Your task to perform on an android device: Show me productivity apps on the Play Store Image 0: 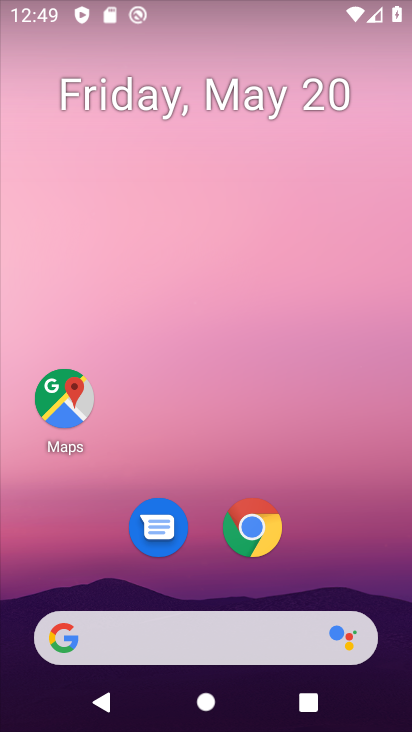
Step 0: drag from (249, 415) to (241, 1)
Your task to perform on an android device: Show me productivity apps on the Play Store Image 1: 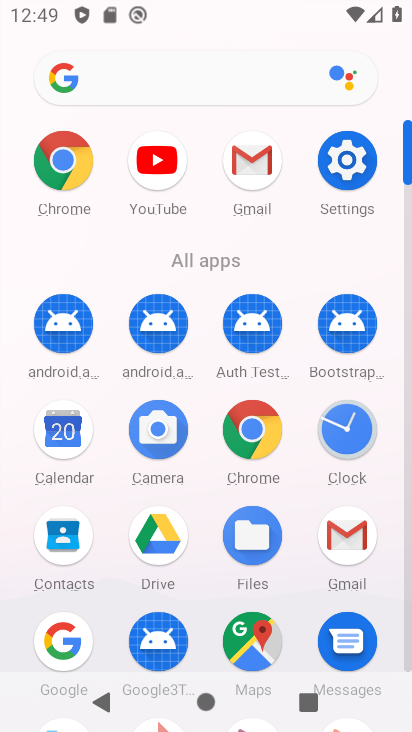
Step 1: drag from (204, 508) to (215, 150)
Your task to perform on an android device: Show me productivity apps on the Play Store Image 2: 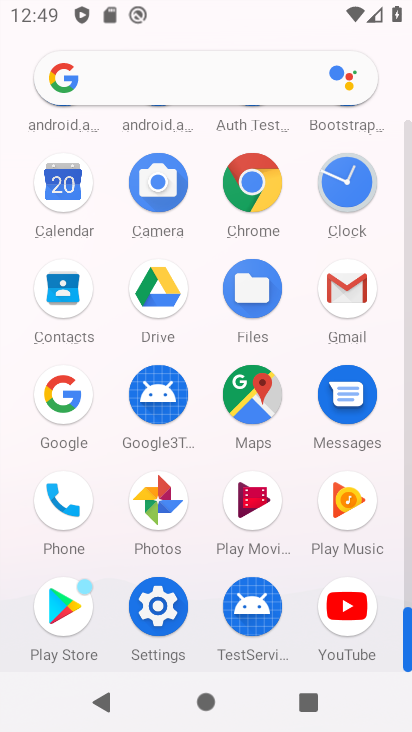
Step 2: click (72, 595)
Your task to perform on an android device: Show me productivity apps on the Play Store Image 3: 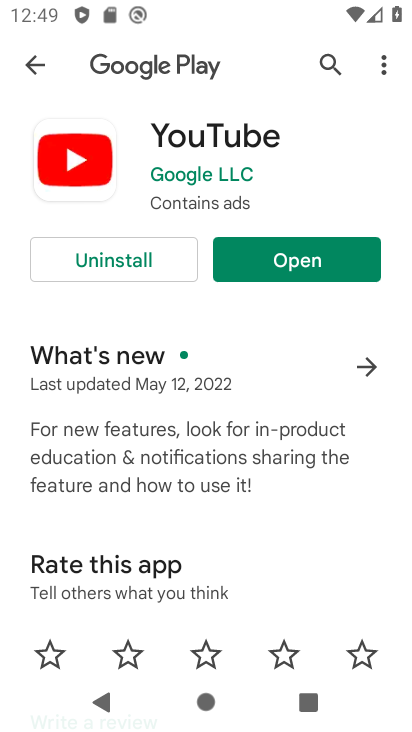
Step 3: click (29, 61)
Your task to perform on an android device: Show me productivity apps on the Play Store Image 4: 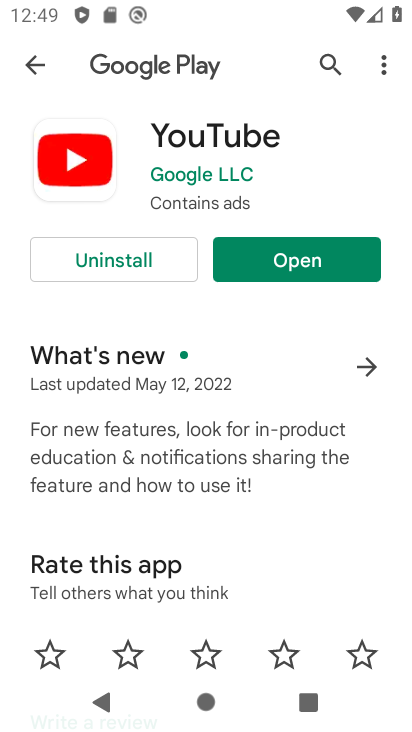
Step 4: click (35, 61)
Your task to perform on an android device: Show me productivity apps on the Play Store Image 5: 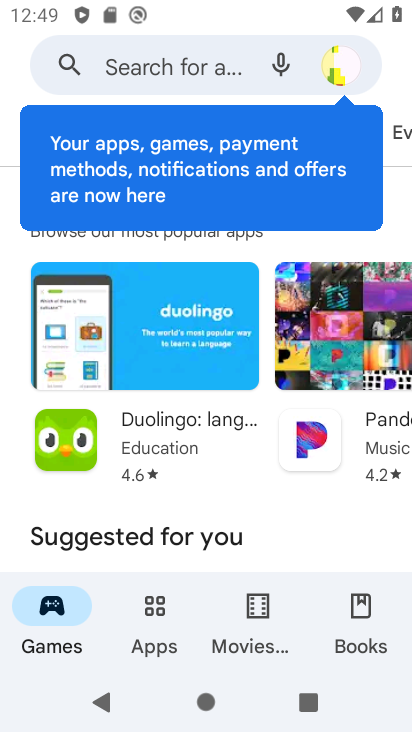
Step 5: click (150, 593)
Your task to perform on an android device: Show me productivity apps on the Play Store Image 6: 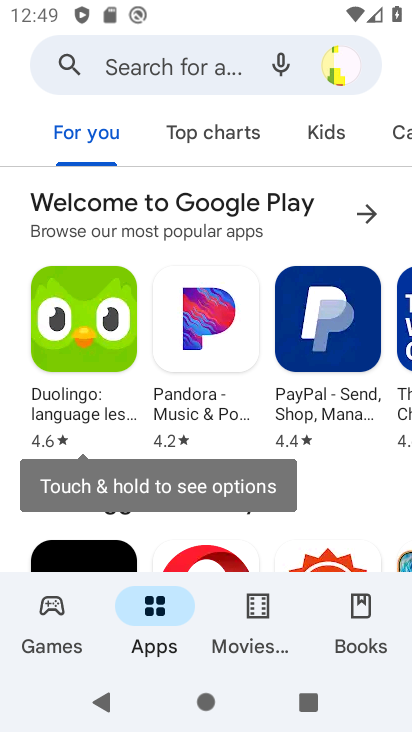
Step 6: click (396, 132)
Your task to perform on an android device: Show me productivity apps on the Play Store Image 7: 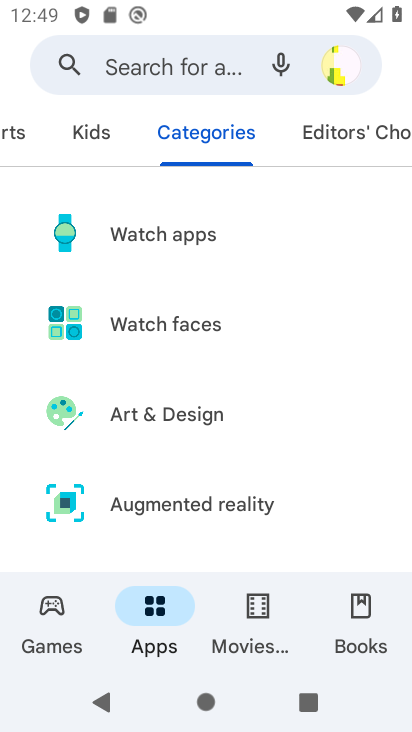
Step 7: drag from (226, 479) to (305, 0)
Your task to perform on an android device: Show me productivity apps on the Play Store Image 8: 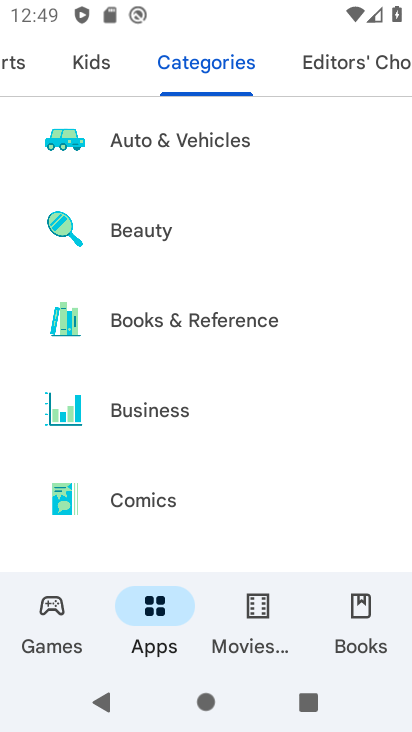
Step 8: drag from (239, 527) to (272, 2)
Your task to perform on an android device: Show me productivity apps on the Play Store Image 9: 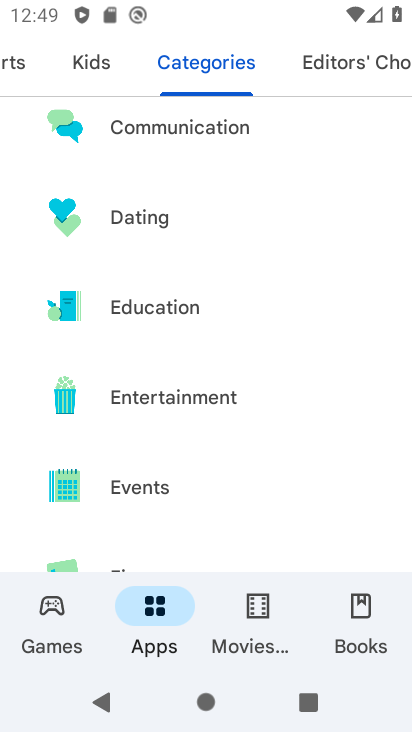
Step 9: drag from (223, 554) to (274, 0)
Your task to perform on an android device: Show me productivity apps on the Play Store Image 10: 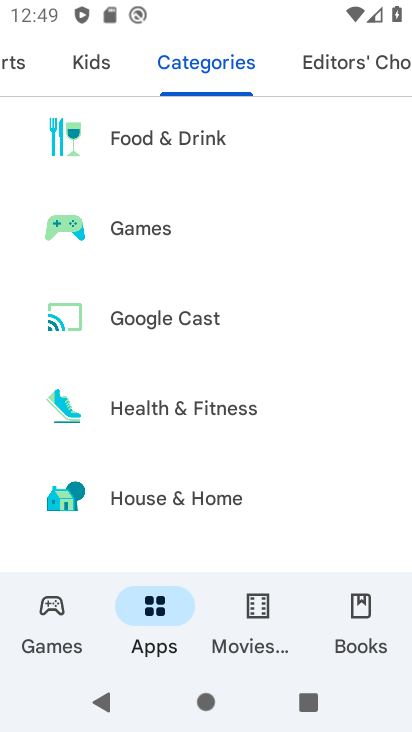
Step 10: drag from (201, 528) to (221, 112)
Your task to perform on an android device: Show me productivity apps on the Play Store Image 11: 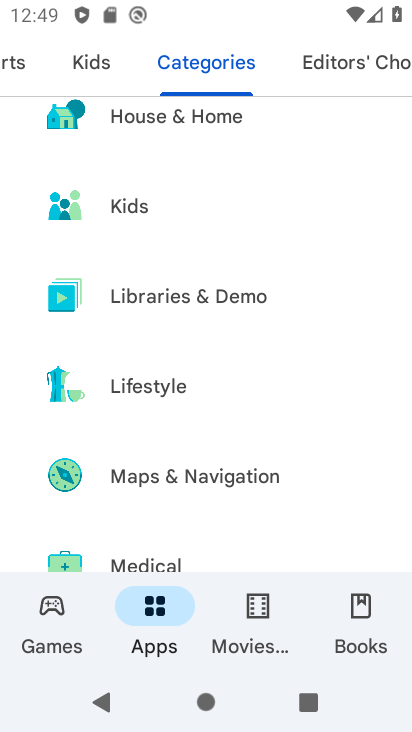
Step 11: drag from (200, 527) to (254, 0)
Your task to perform on an android device: Show me productivity apps on the Play Store Image 12: 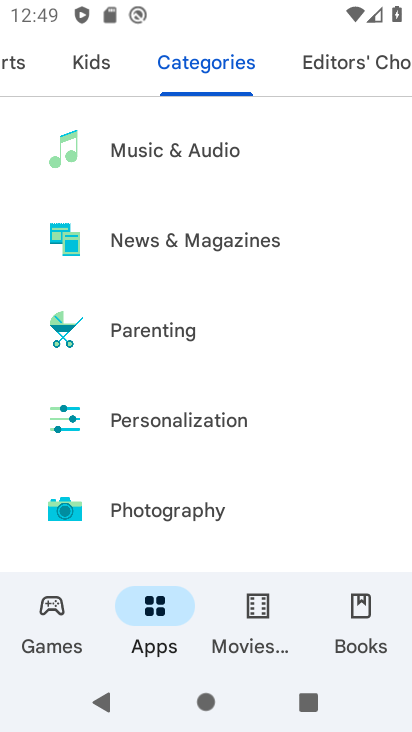
Step 12: drag from (286, 394) to (305, 211)
Your task to perform on an android device: Show me productivity apps on the Play Store Image 13: 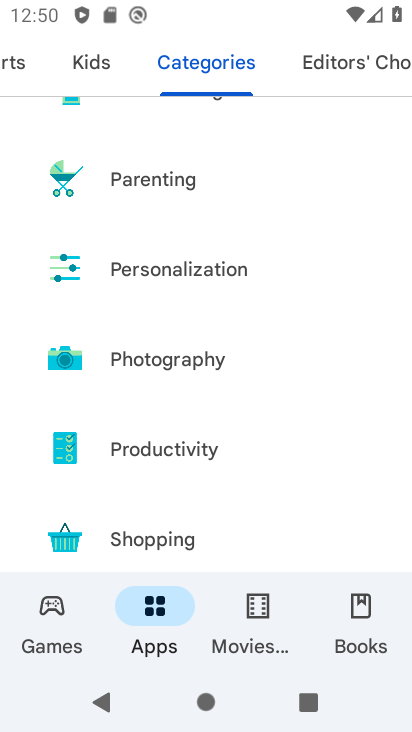
Step 13: click (197, 443)
Your task to perform on an android device: Show me productivity apps on the Play Store Image 14: 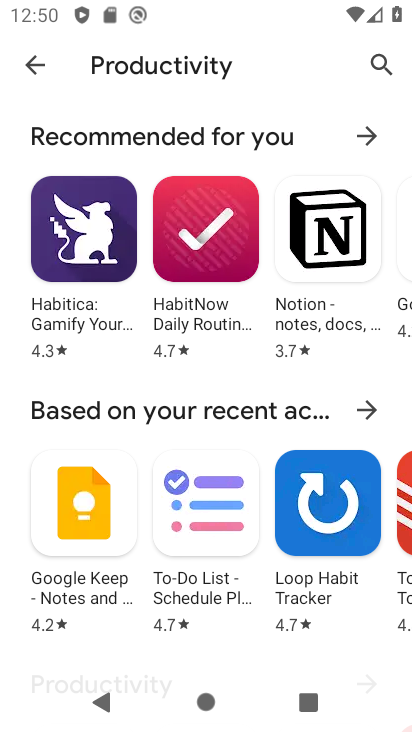
Step 14: drag from (197, 440) to (211, 115)
Your task to perform on an android device: Show me productivity apps on the Play Store Image 15: 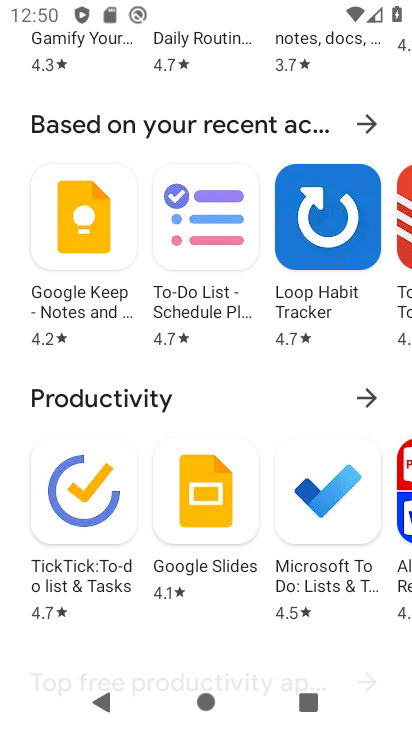
Step 15: click (357, 395)
Your task to perform on an android device: Show me productivity apps on the Play Store Image 16: 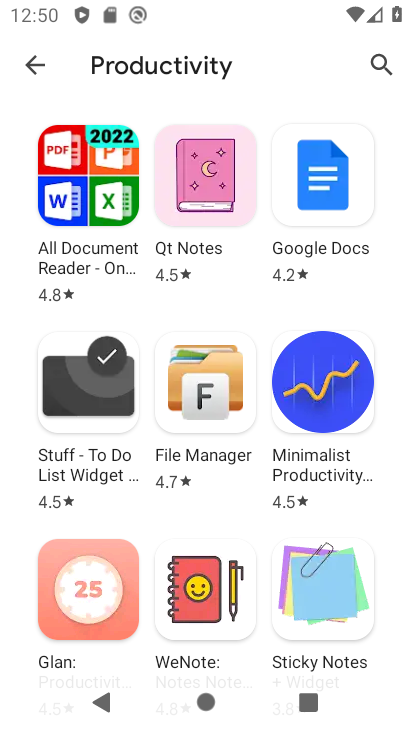
Step 16: task complete